Your task to perform on an android device: Go to Google maps Image 0: 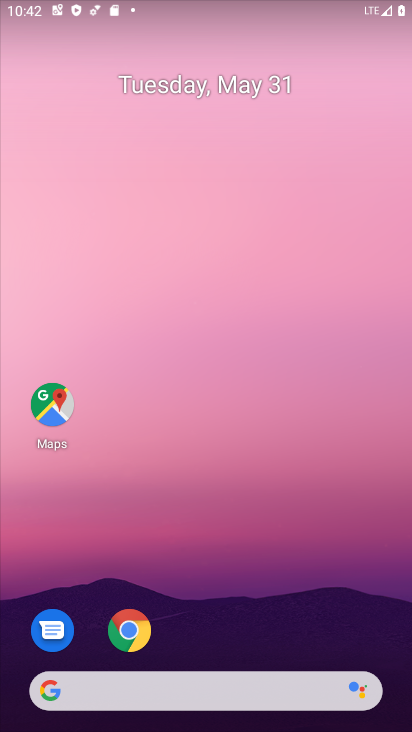
Step 0: drag from (178, 617) to (213, 244)
Your task to perform on an android device: Go to Google maps Image 1: 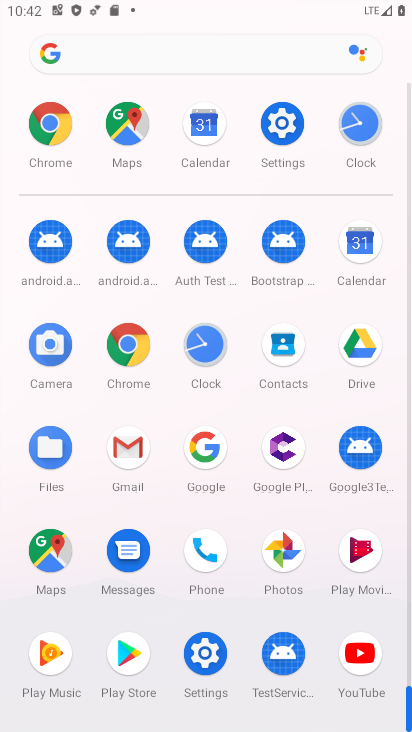
Step 1: drag from (205, 515) to (217, 329)
Your task to perform on an android device: Go to Google maps Image 2: 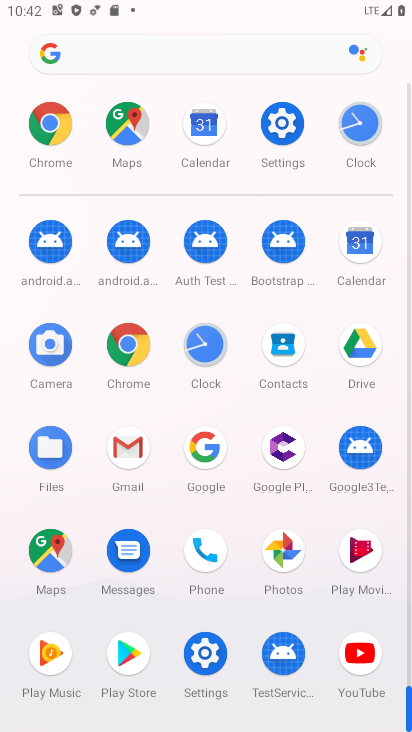
Step 2: click (46, 562)
Your task to perform on an android device: Go to Google maps Image 3: 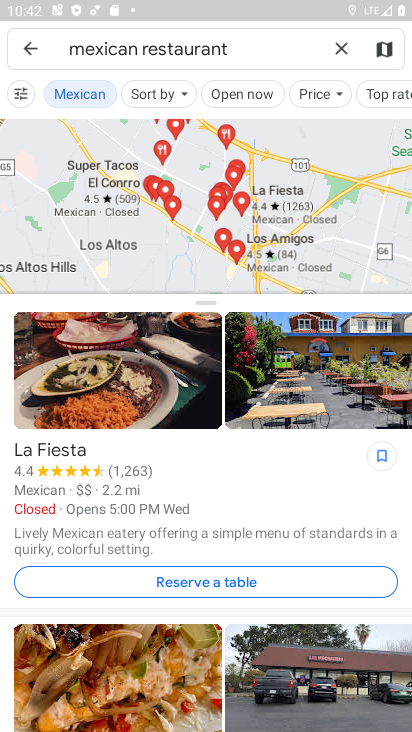
Step 3: task complete